Your task to perform on an android device: Search for razer deathadder on costco, select the first entry, and add it to the cart. Image 0: 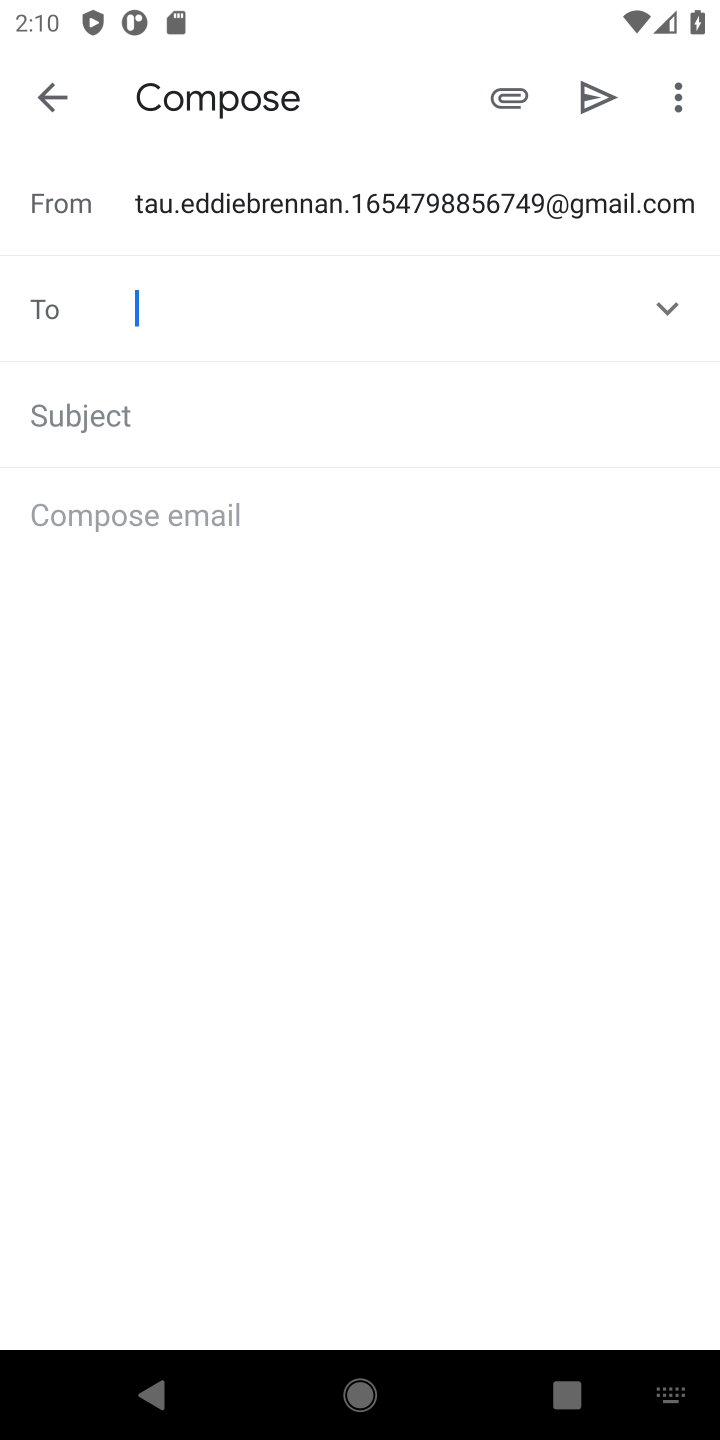
Step 0: press home button
Your task to perform on an android device: Search for razer deathadder on costco, select the first entry, and add it to the cart. Image 1: 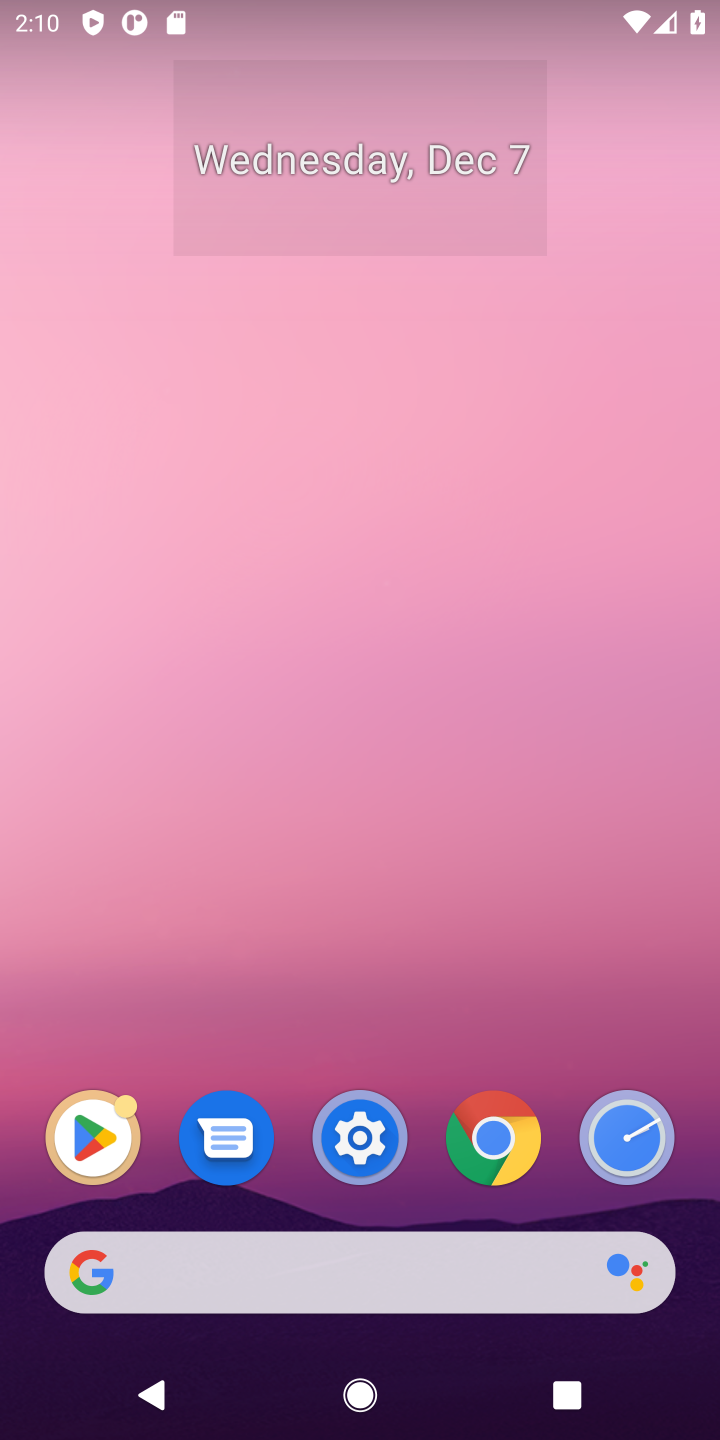
Step 1: click (430, 1273)
Your task to perform on an android device: Search for razer deathadder on costco, select the first entry, and add it to the cart. Image 2: 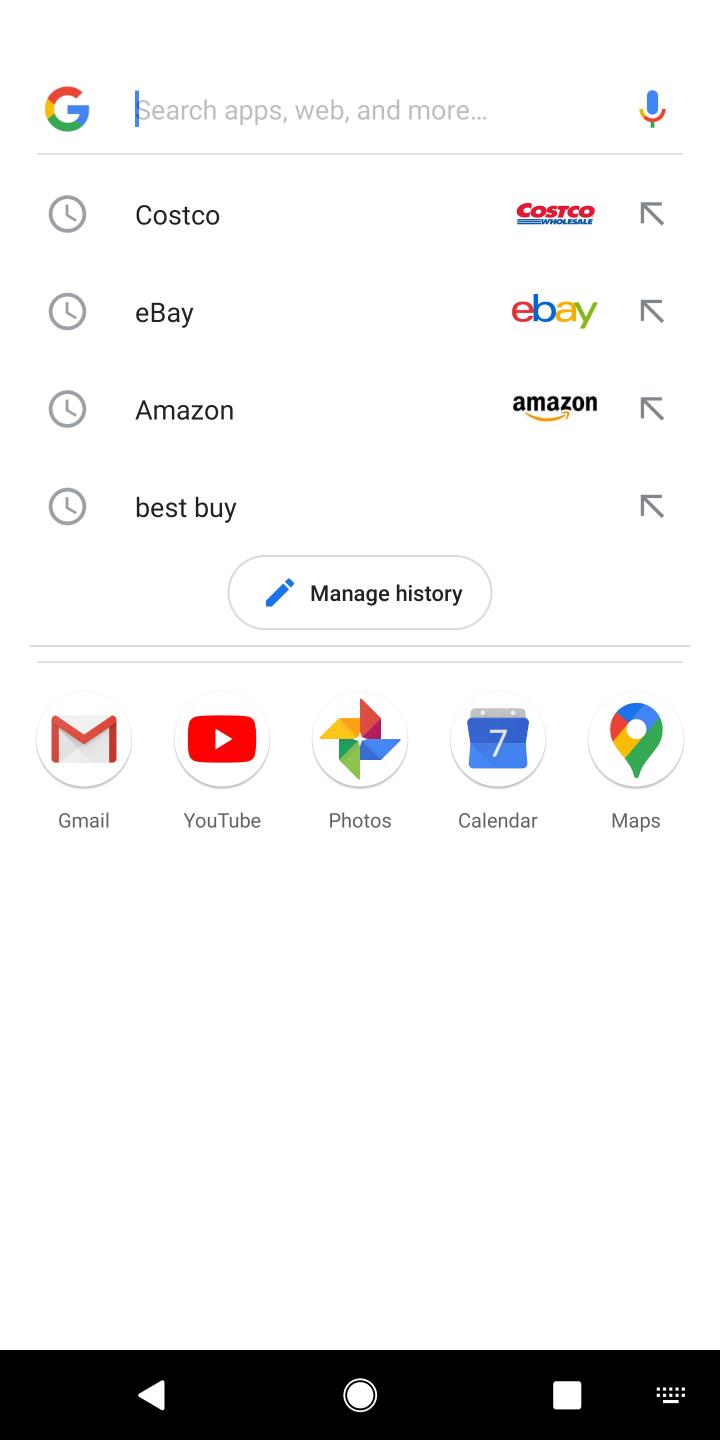
Step 2: press home button
Your task to perform on an android device: Search for razer deathadder on costco, select the first entry, and add it to the cart. Image 3: 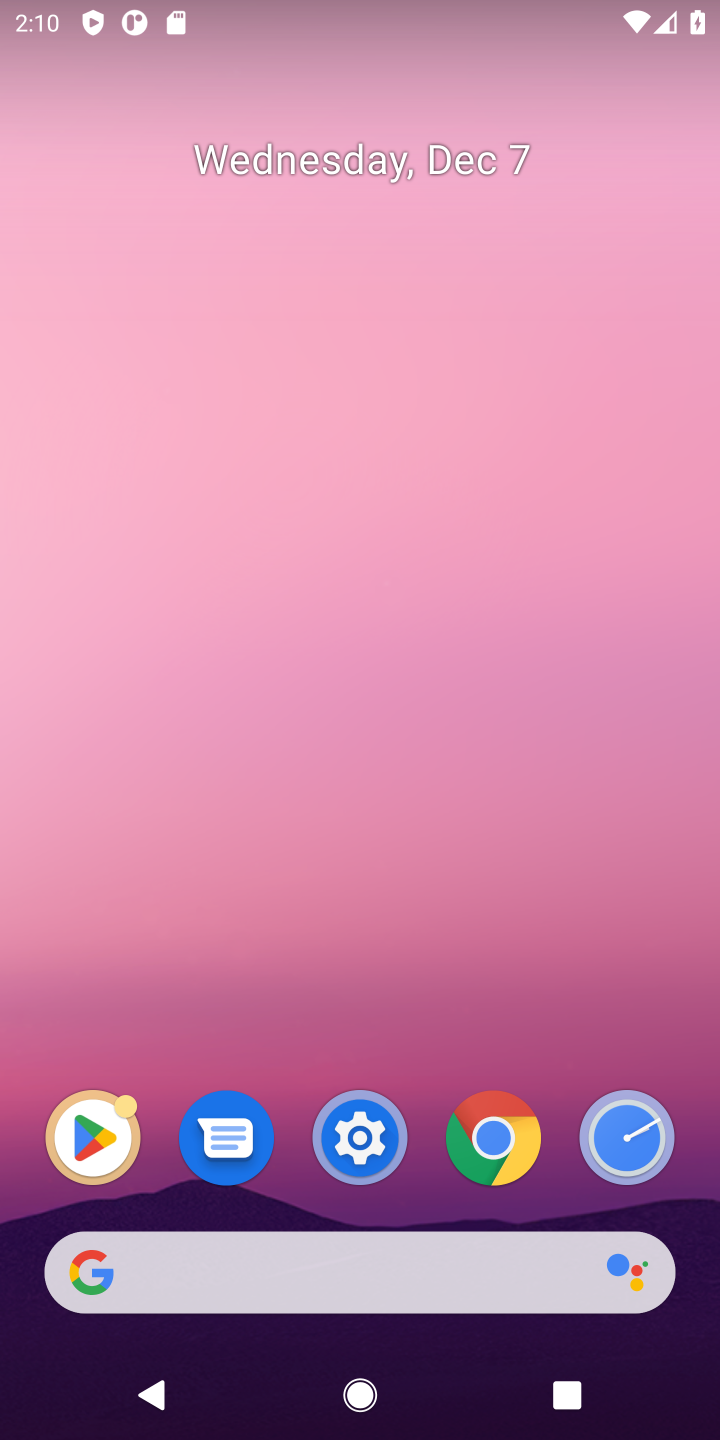
Step 3: click (406, 1264)
Your task to perform on an android device: Search for razer deathadder on costco, select the first entry, and add it to the cart. Image 4: 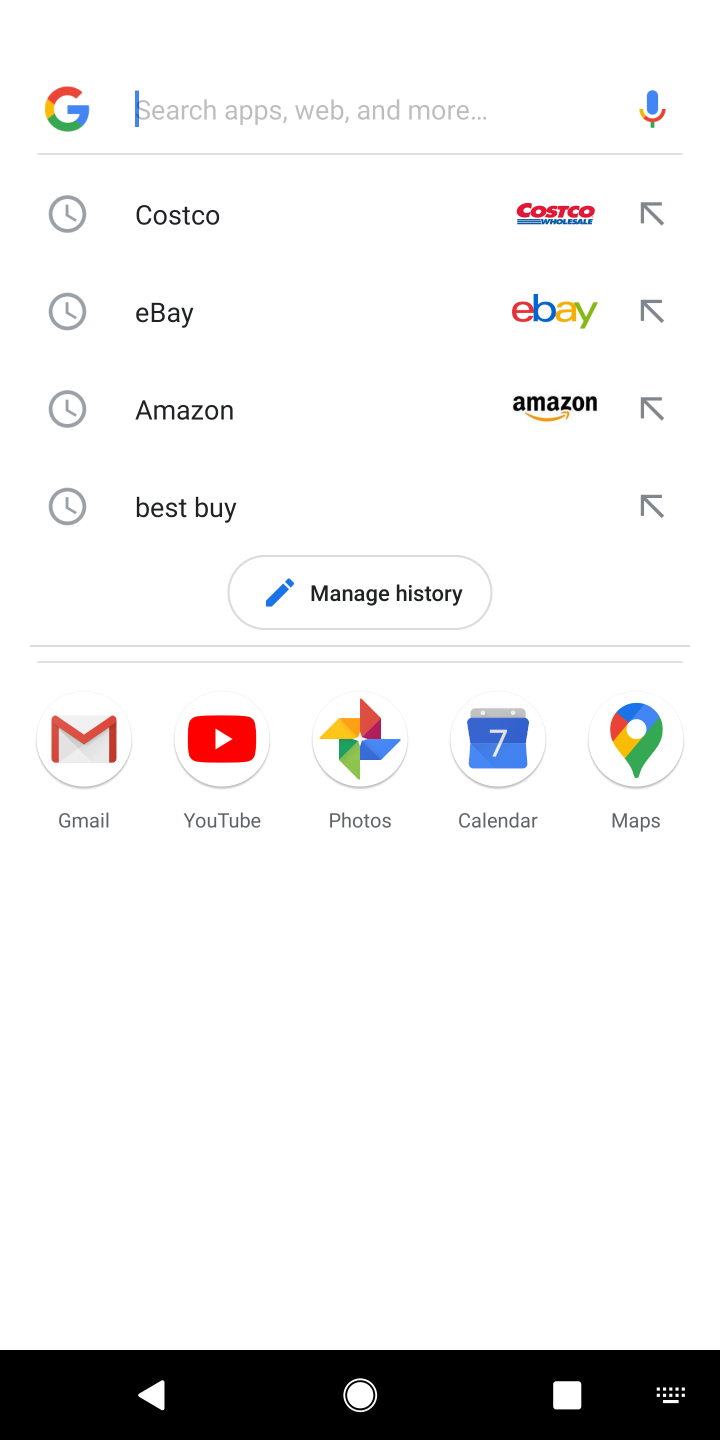
Step 4: click (281, 231)
Your task to perform on an android device: Search for razer deathadder on costco, select the first entry, and add it to the cart. Image 5: 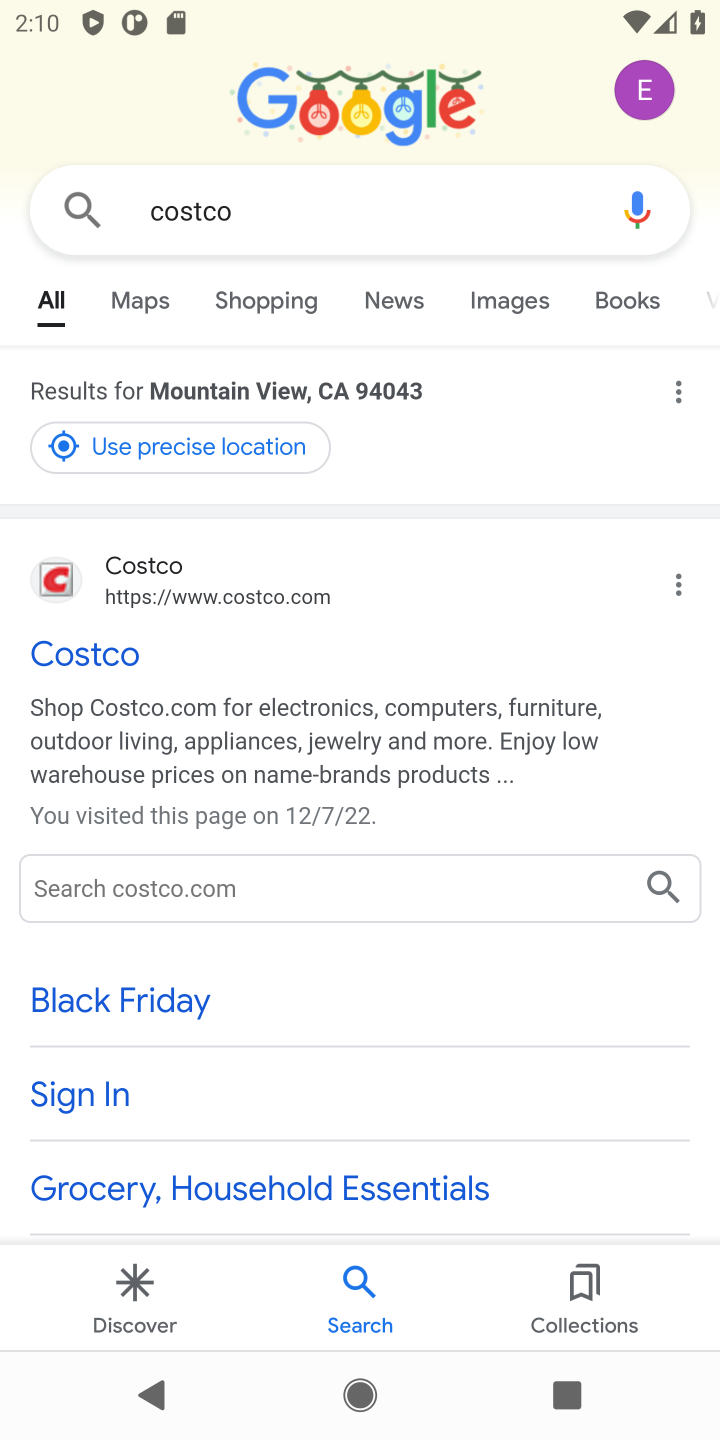
Step 5: click (146, 643)
Your task to perform on an android device: Search for razer deathadder on costco, select the first entry, and add it to the cart. Image 6: 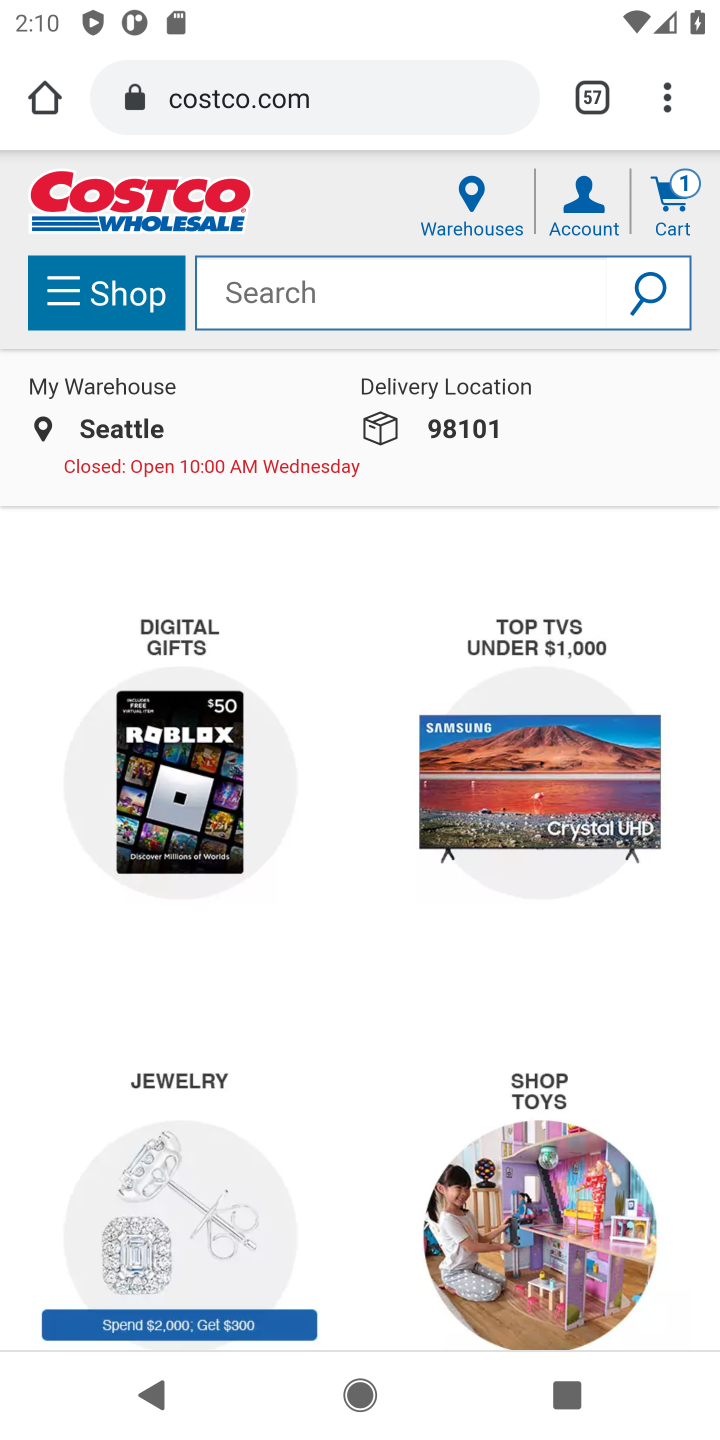
Step 6: click (307, 285)
Your task to perform on an android device: Search for razer deathadder on costco, select the first entry, and add it to the cart. Image 7: 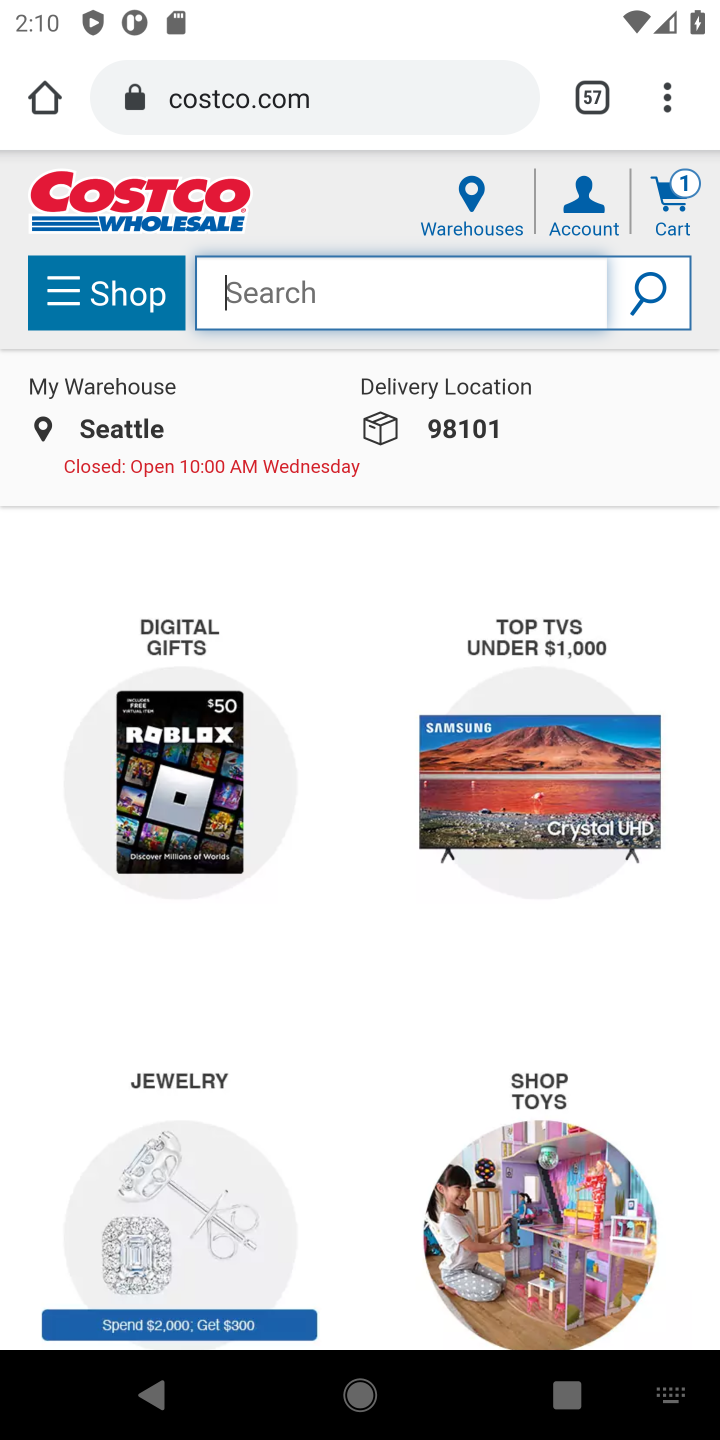
Step 7: type "razer deathadder"
Your task to perform on an android device: Search for razer deathadder on costco, select the first entry, and add it to the cart. Image 8: 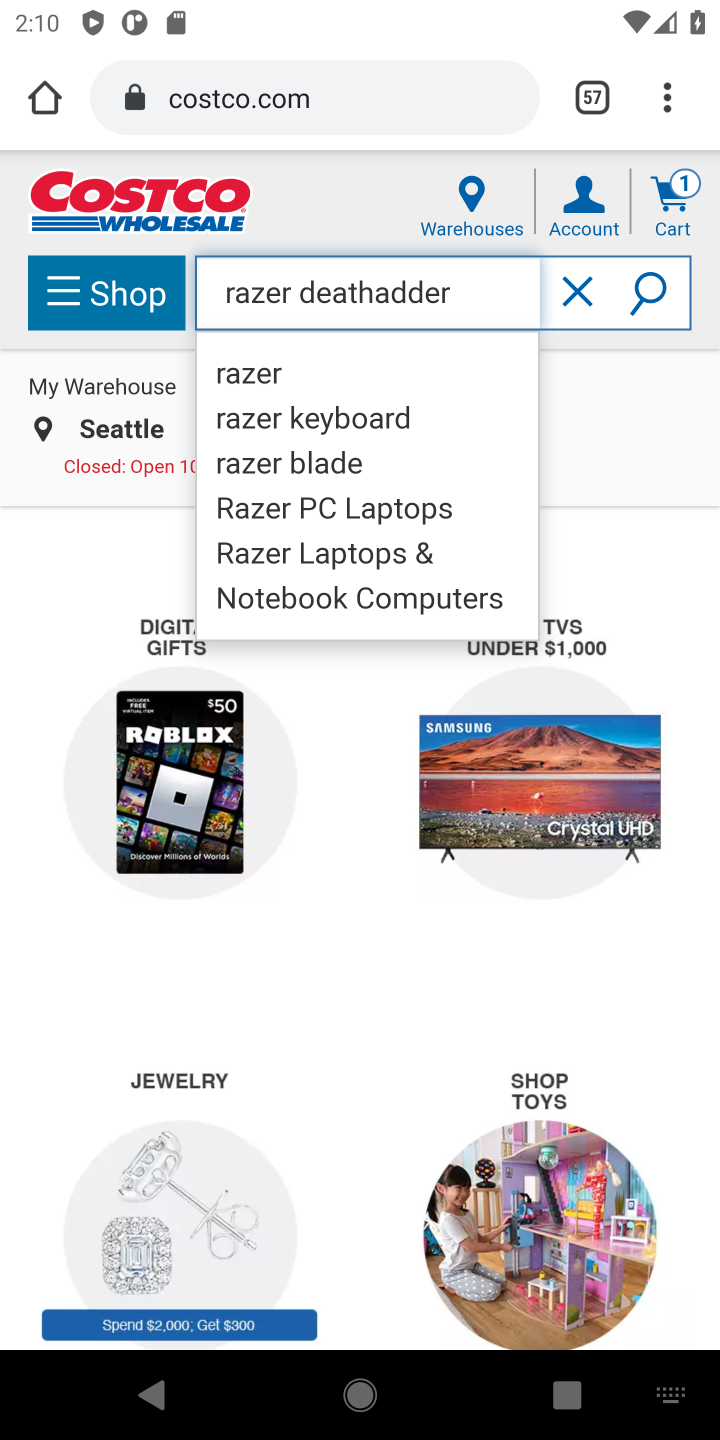
Step 8: click (635, 298)
Your task to perform on an android device: Search for razer deathadder on costco, select the first entry, and add it to the cart. Image 9: 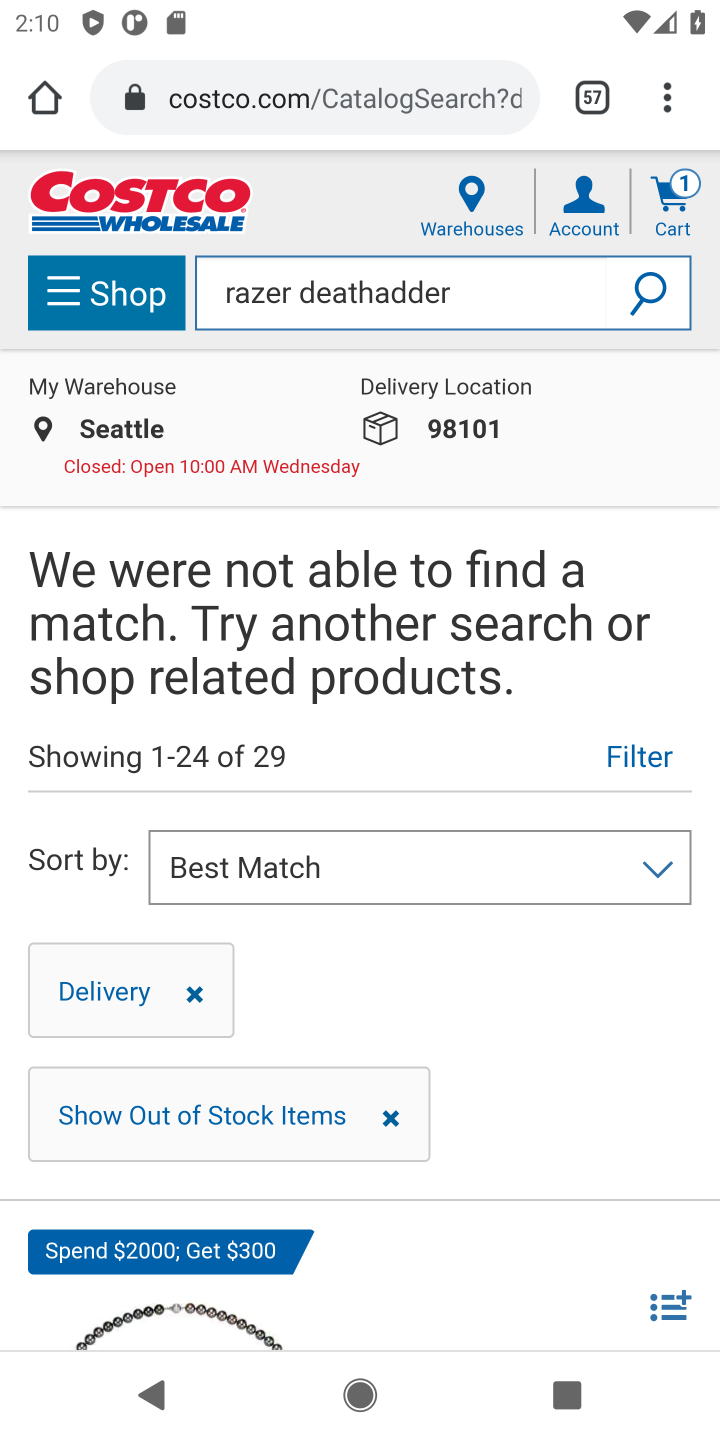
Step 9: drag from (504, 1159) to (452, 376)
Your task to perform on an android device: Search for razer deathadder on costco, select the first entry, and add it to the cart. Image 10: 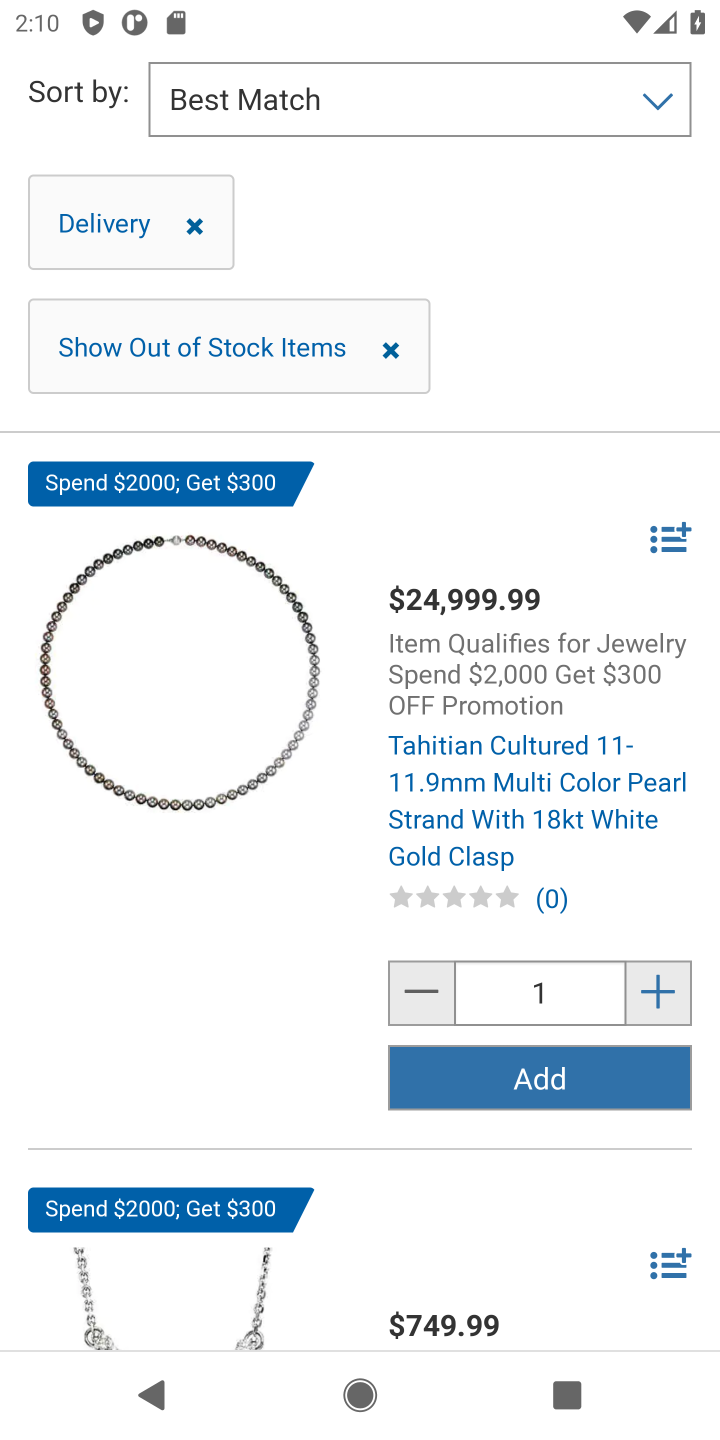
Step 10: click (492, 1059)
Your task to perform on an android device: Search for razer deathadder on costco, select the first entry, and add it to the cart. Image 11: 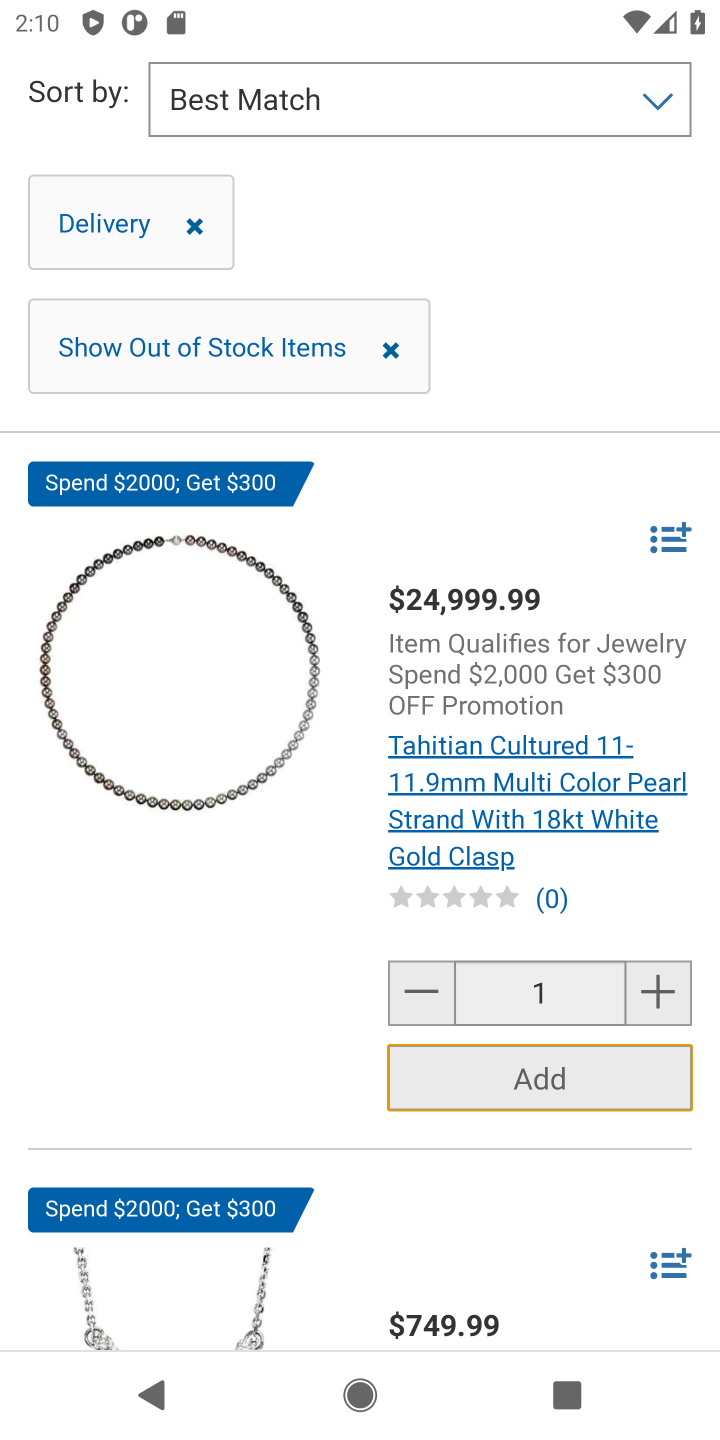
Step 11: task complete